Your task to perform on an android device: open sync settings in chrome Image 0: 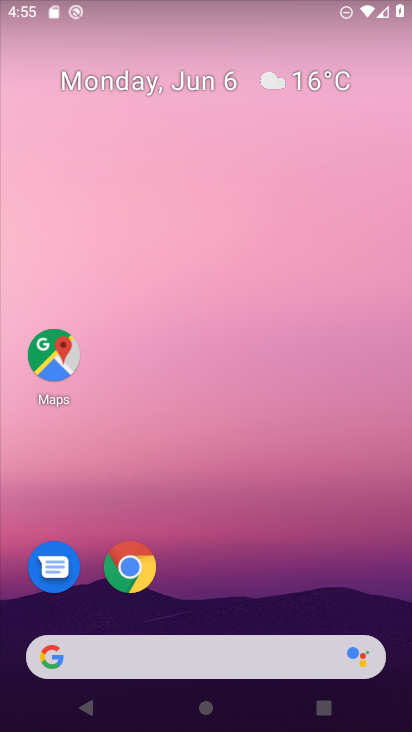
Step 0: drag from (256, 709) to (117, 284)
Your task to perform on an android device: open sync settings in chrome Image 1: 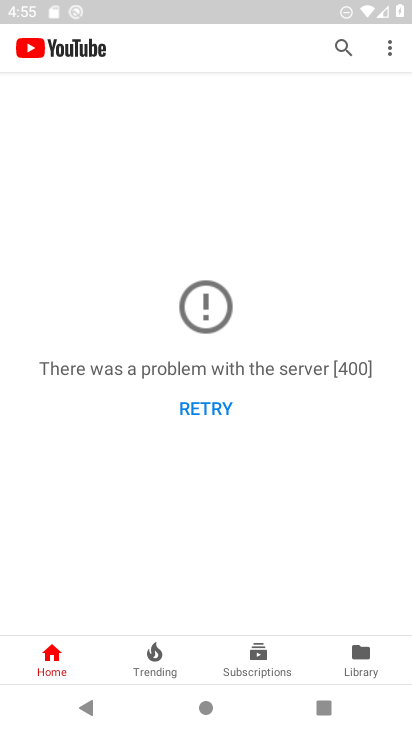
Step 1: press back button
Your task to perform on an android device: open sync settings in chrome Image 2: 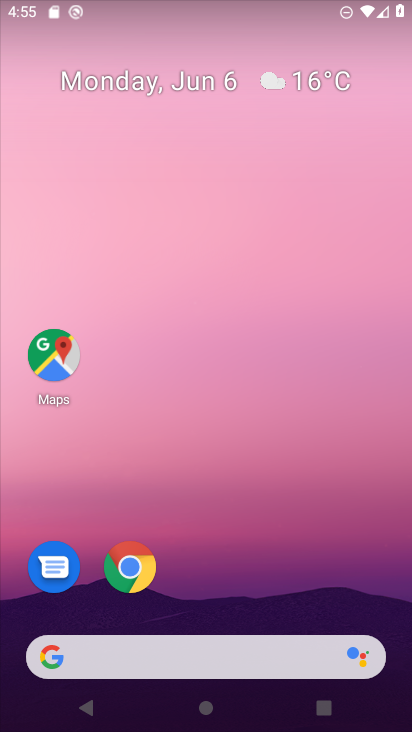
Step 2: drag from (251, 620) to (119, 148)
Your task to perform on an android device: open sync settings in chrome Image 3: 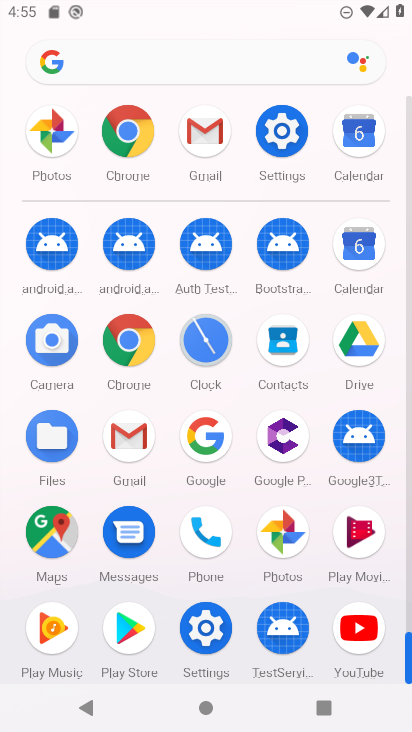
Step 3: click (132, 337)
Your task to perform on an android device: open sync settings in chrome Image 4: 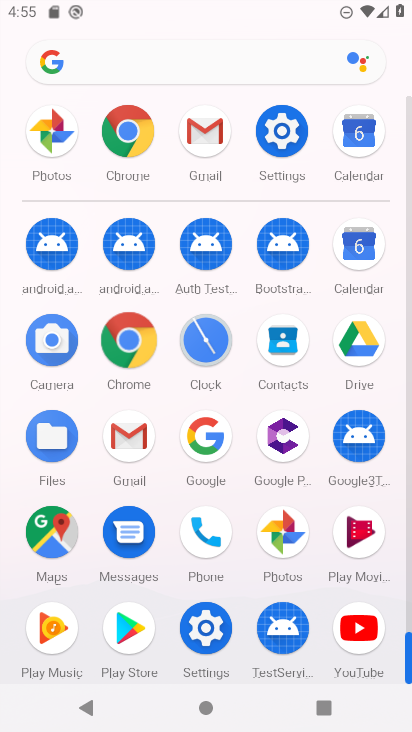
Step 4: click (132, 337)
Your task to perform on an android device: open sync settings in chrome Image 5: 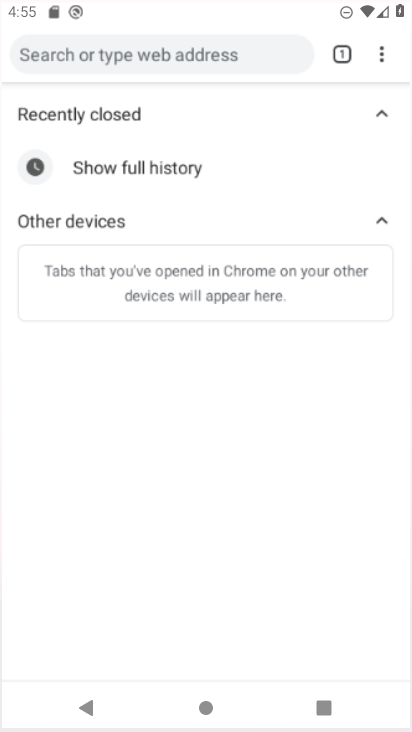
Step 5: click (132, 337)
Your task to perform on an android device: open sync settings in chrome Image 6: 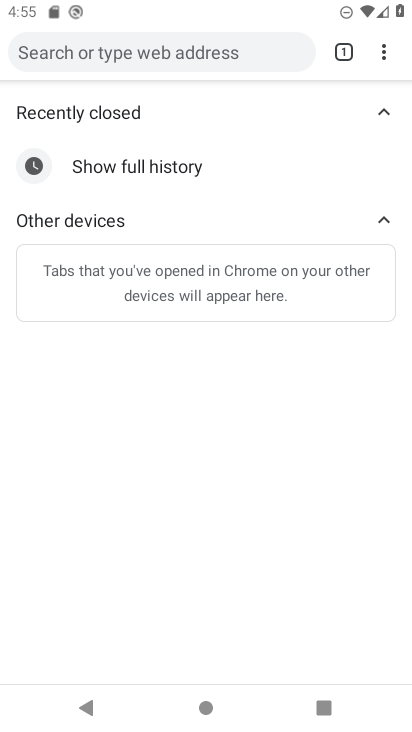
Step 6: drag from (376, 58) to (194, 437)
Your task to perform on an android device: open sync settings in chrome Image 7: 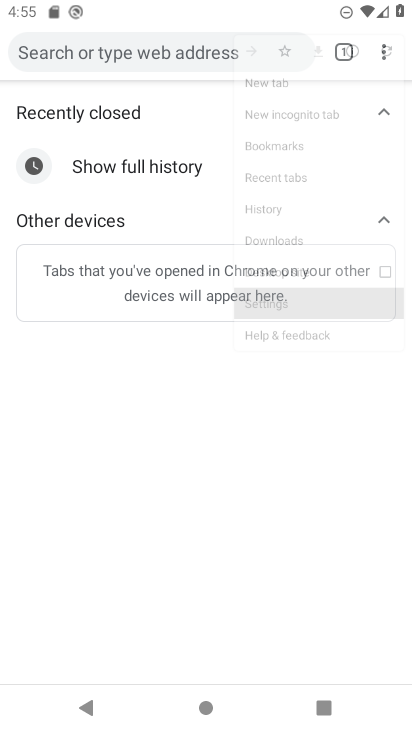
Step 7: click (195, 438)
Your task to perform on an android device: open sync settings in chrome Image 8: 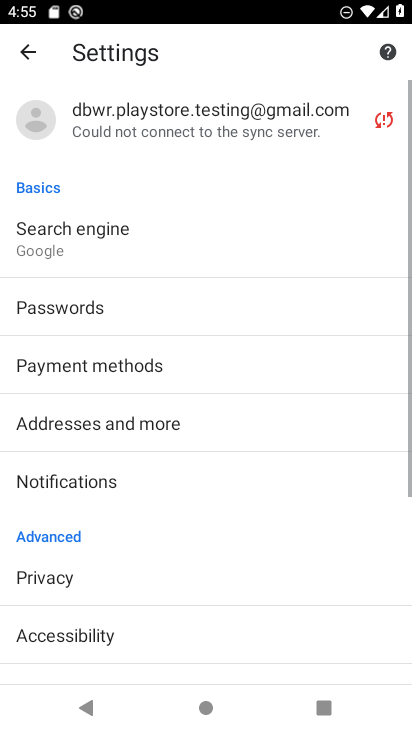
Step 8: drag from (98, 589) to (71, 201)
Your task to perform on an android device: open sync settings in chrome Image 9: 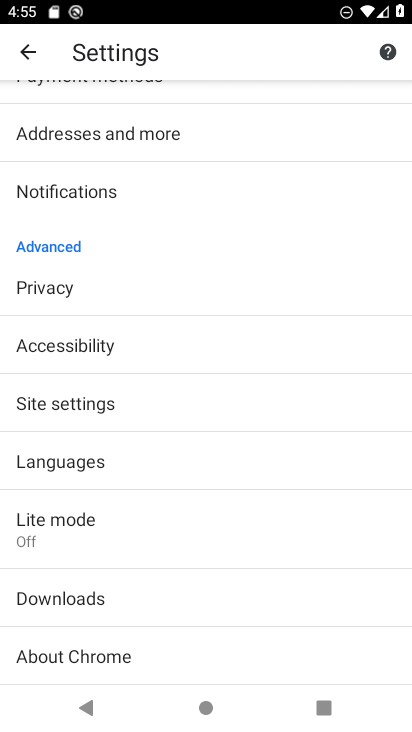
Step 9: click (66, 402)
Your task to perform on an android device: open sync settings in chrome Image 10: 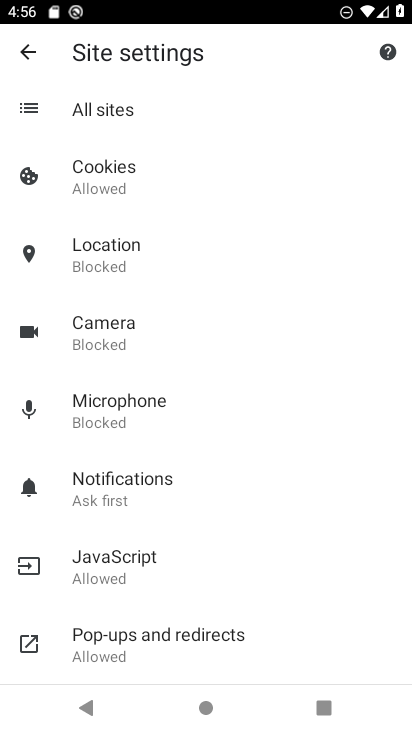
Step 10: drag from (137, 628) to (88, 275)
Your task to perform on an android device: open sync settings in chrome Image 11: 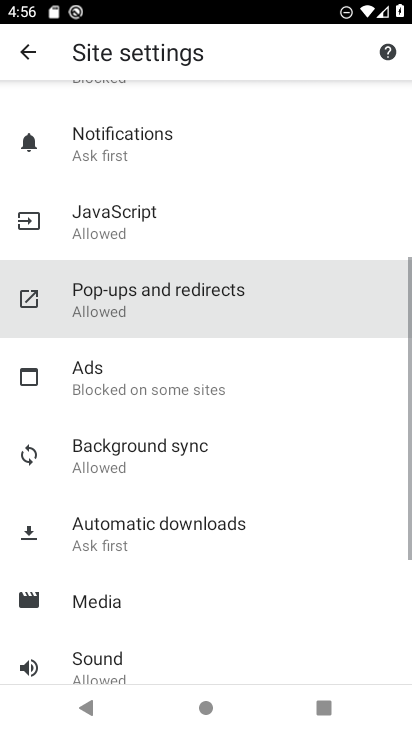
Step 11: drag from (155, 509) to (162, 244)
Your task to perform on an android device: open sync settings in chrome Image 12: 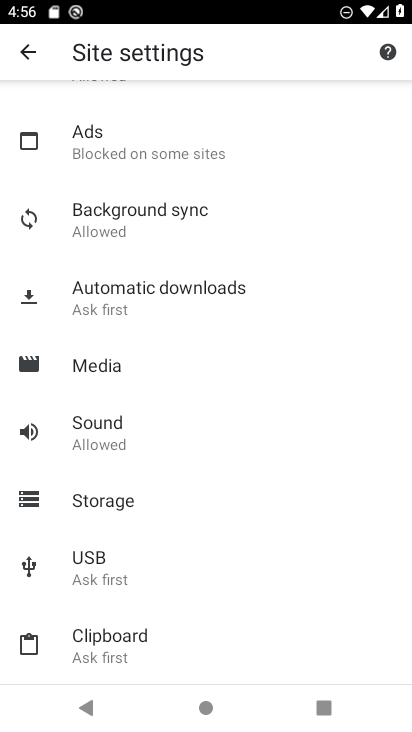
Step 12: click (104, 195)
Your task to perform on an android device: open sync settings in chrome Image 13: 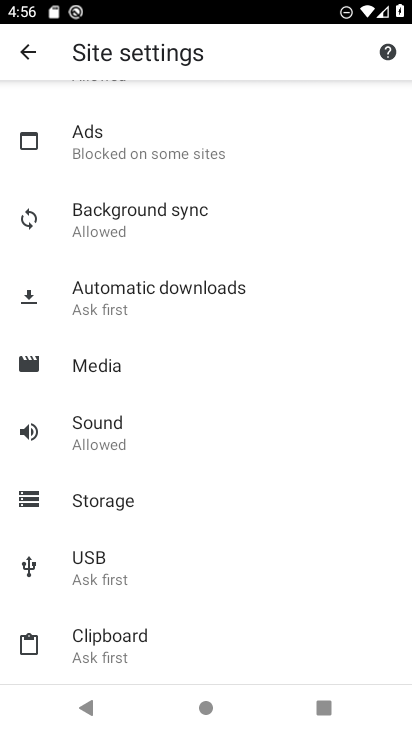
Step 13: click (97, 218)
Your task to perform on an android device: open sync settings in chrome Image 14: 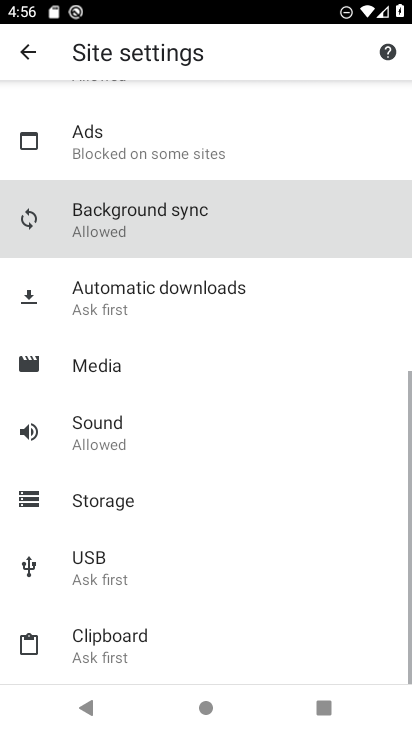
Step 14: click (97, 218)
Your task to perform on an android device: open sync settings in chrome Image 15: 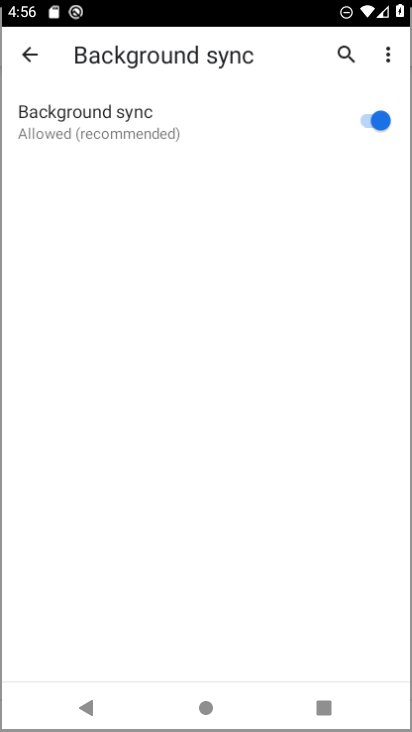
Step 15: click (91, 221)
Your task to perform on an android device: open sync settings in chrome Image 16: 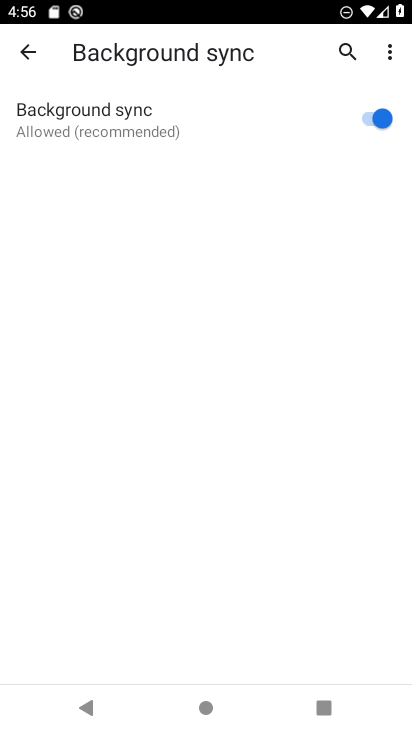
Step 16: click (91, 221)
Your task to perform on an android device: open sync settings in chrome Image 17: 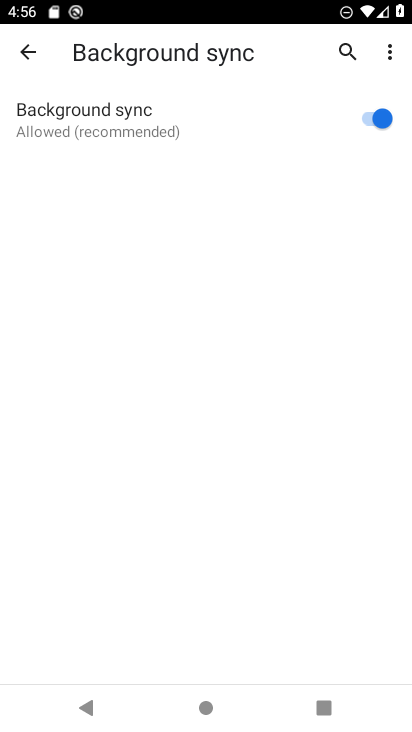
Step 17: task complete